Your task to perform on an android device: turn on improve location accuracy Image 0: 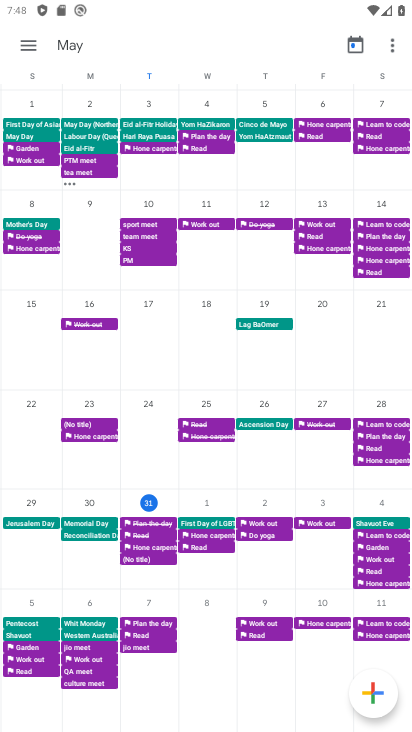
Step 0: press home button
Your task to perform on an android device: turn on improve location accuracy Image 1: 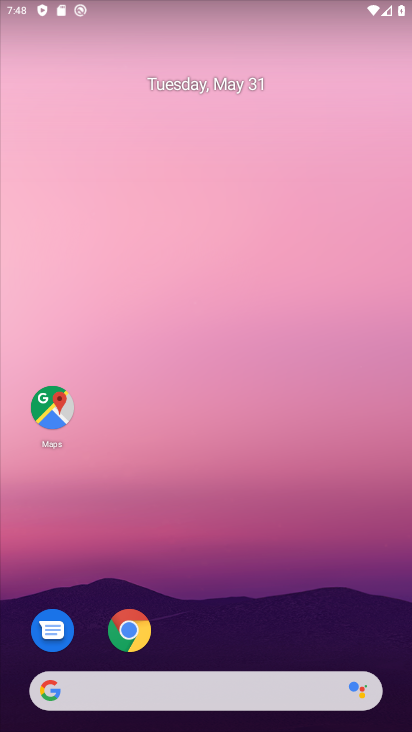
Step 1: drag from (239, 641) to (219, 205)
Your task to perform on an android device: turn on improve location accuracy Image 2: 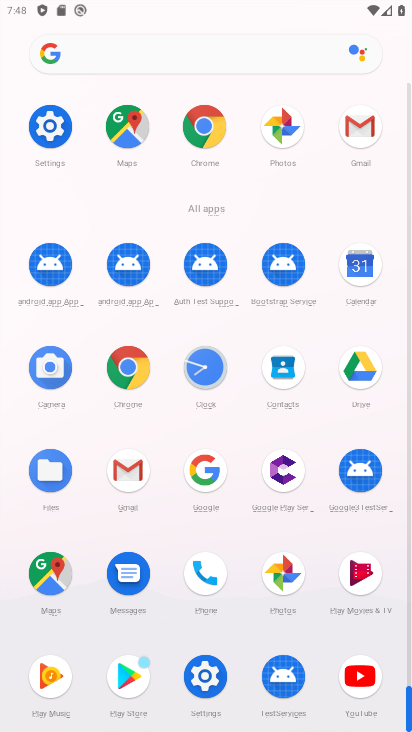
Step 2: click (49, 127)
Your task to perform on an android device: turn on improve location accuracy Image 3: 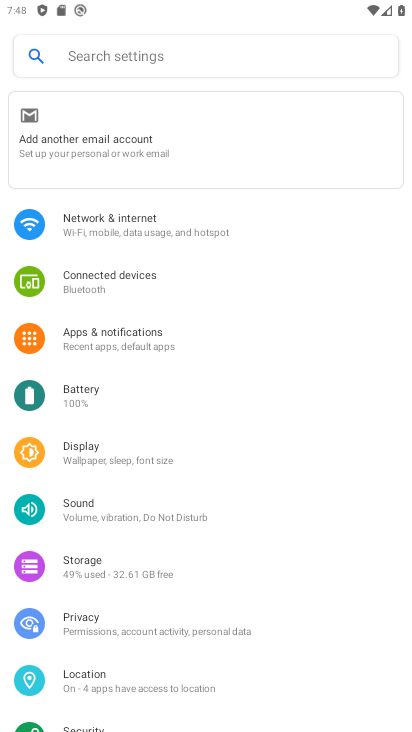
Step 3: drag from (127, 636) to (151, 451)
Your task to perform on an android device: turn on improve location accuracy Image 4: 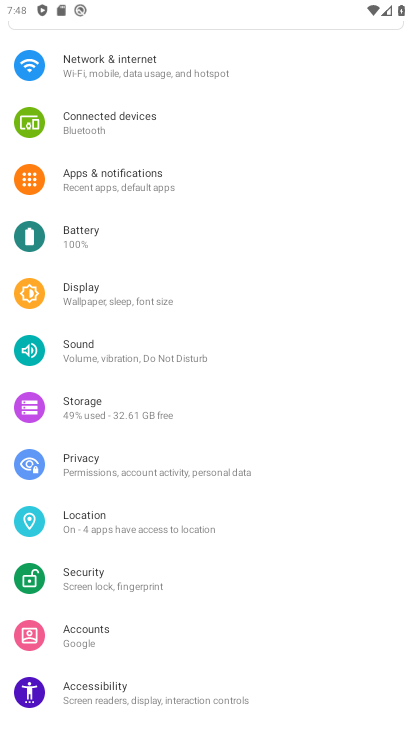
Step 4: click (110, 523)
Your task to perform on an android device: turn on improve location accuracy Image 5: 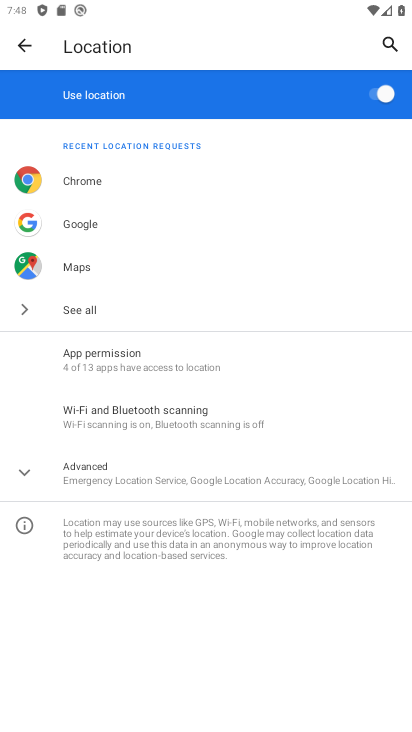
Step 5: click (144, 351)
Your task to perform on an android device: turn on improve location accuracy Image 6: 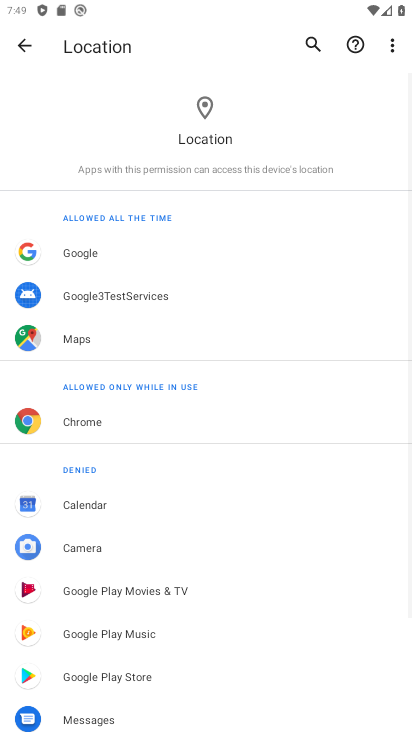
Step 6: click (5, 47)
Your task to perform on an android device: turn on improve location accuracy Image 7: 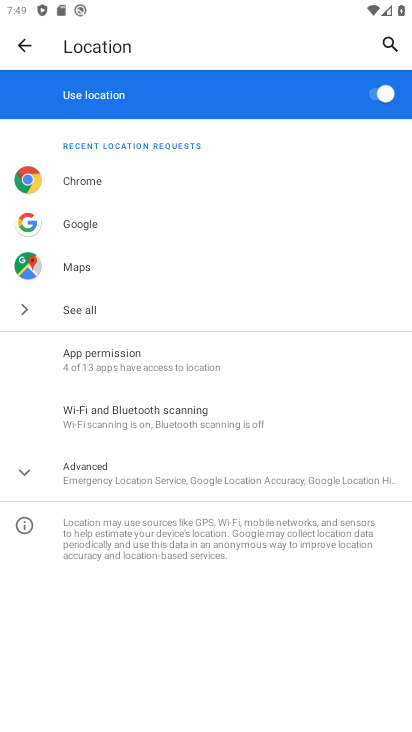
Step 7: click (124, 466)
Your task to perform on an android device: turn on improve location accuracy Image 8: 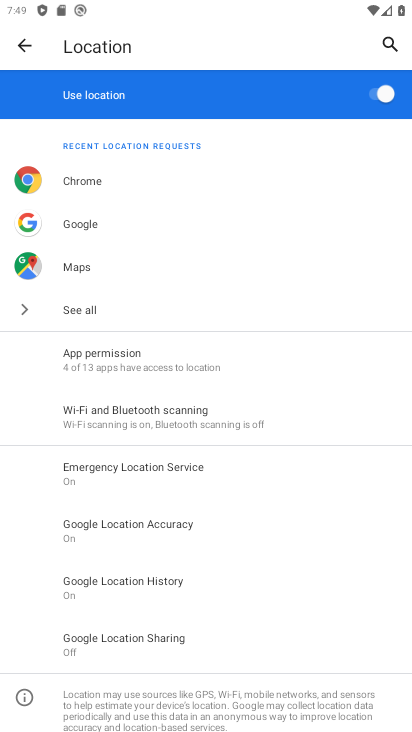
Step 8: click (162, 531)
Your task to perform on an android device: turn on improve location accuracy Image 9: 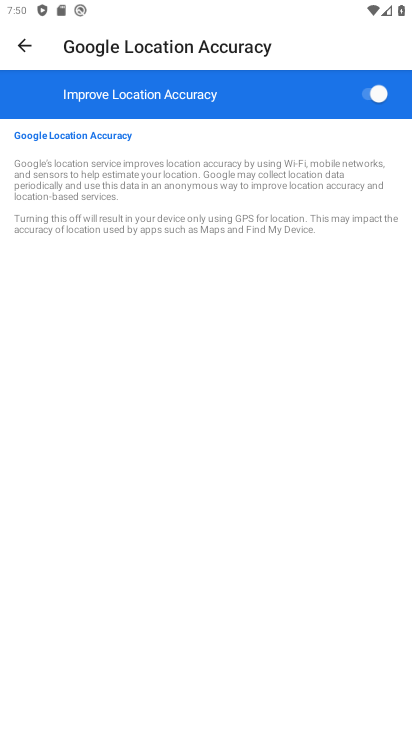
Step 9: task complete